Your task to perform on an android device: set default search engine in the chrome app Image 0: 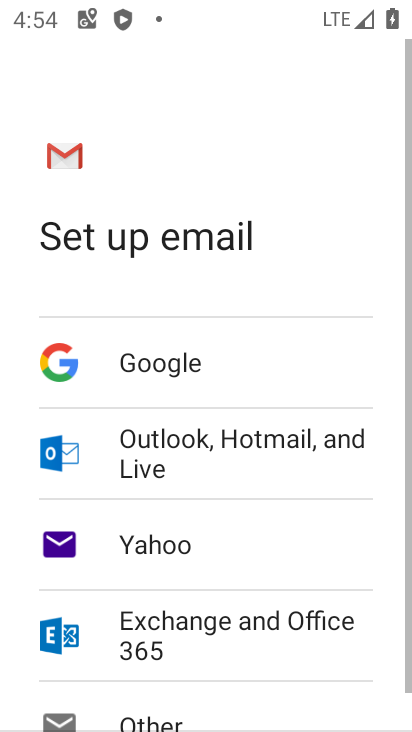
Step 0: press home button
Your task to perform on an android device: set default search engine in the chrome app Image 1: 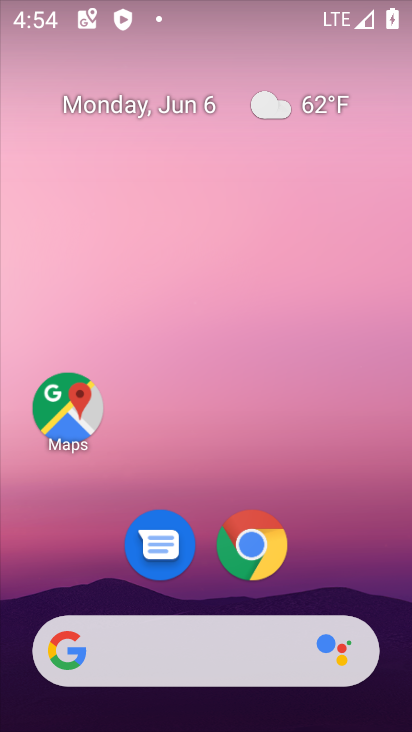
Step 1: click (245, 547)
Your task to perform on an android device: set default search engine in the chrome app Image 2: 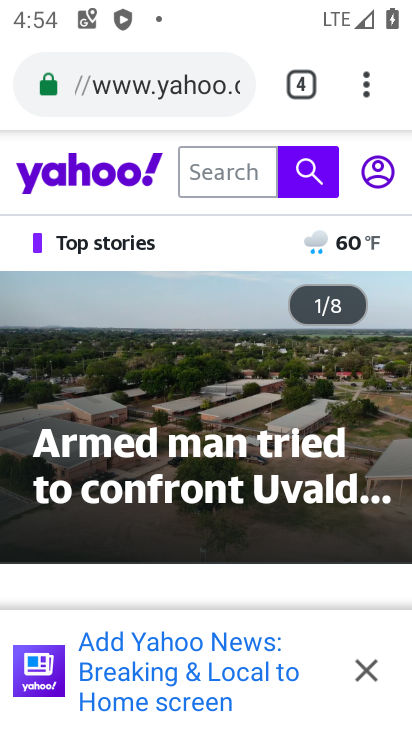
Step 2: click (365, 90)
Your task to perform on an android device: set default search engine in the chrome app Image 3: 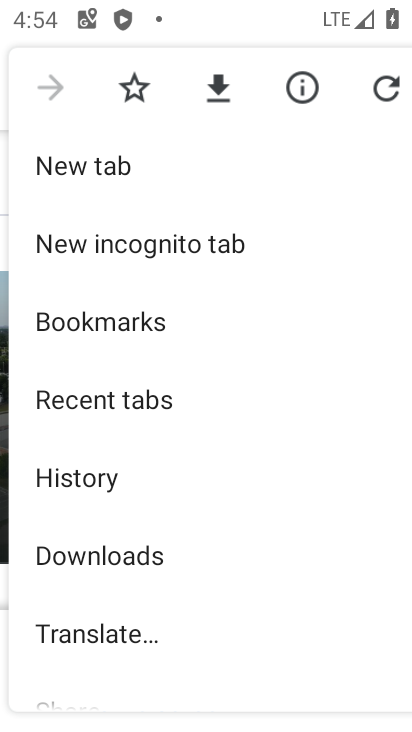
Step 3: drag from (104, 662) to (101, 222)
Your task to perform on an android device: set default search engine in the chrome app Image 4: 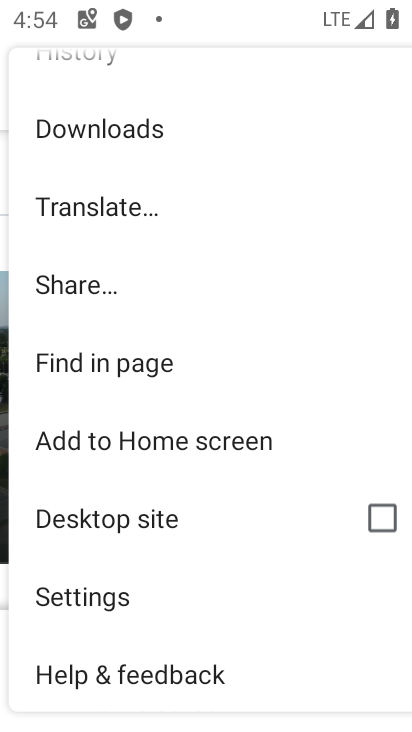
Step 4: click (87, 599)
Your task to perform on an android device: set default search engine in the chrome app Image 5: 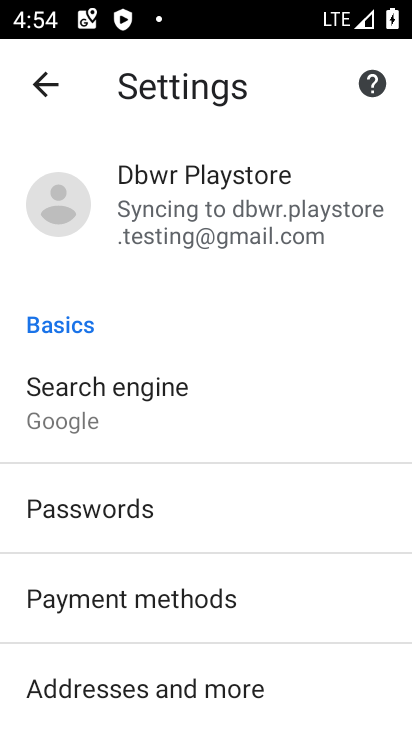
Step 5: click (92, 394)
Your task to perform on an android device: set default search engine in the chrome app Image 6: 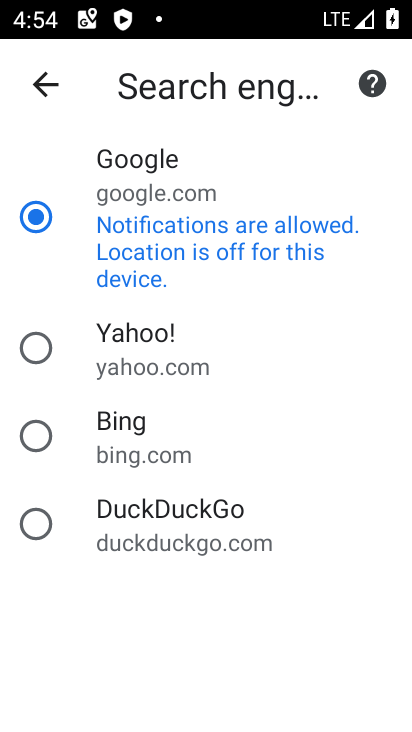
Step 6: click (40, 349)
Your task to perform on an android device: set default search engine in the chrome app Image 7: 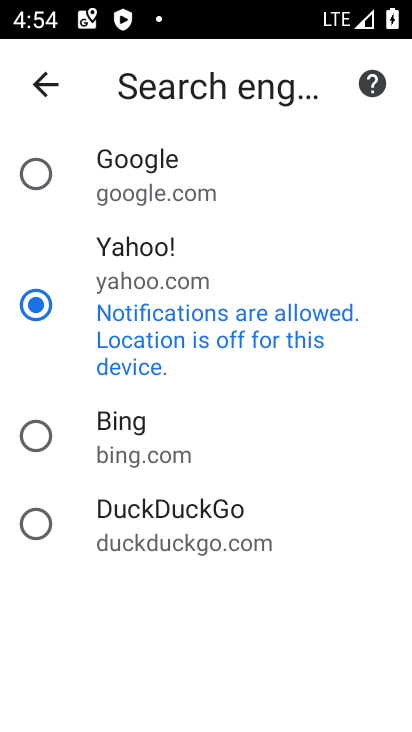
Step 7: task complete